Your task to perform on an android device: turn on data saver in the chrome app Image 0: 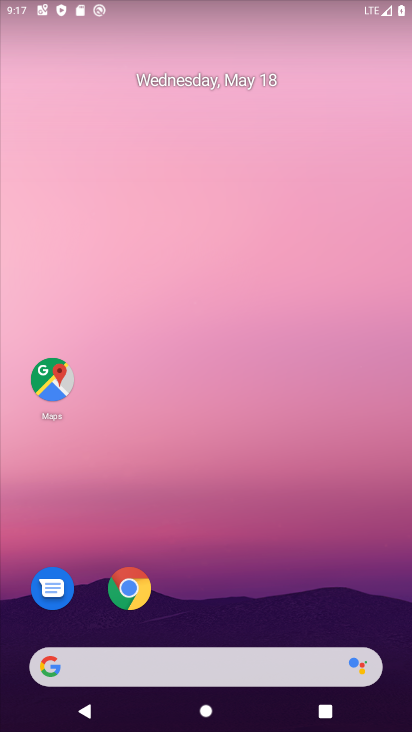
Step 0: click (128, 593)
Your task to perform on an android device: turn on data saver in the chrome app Image 1: 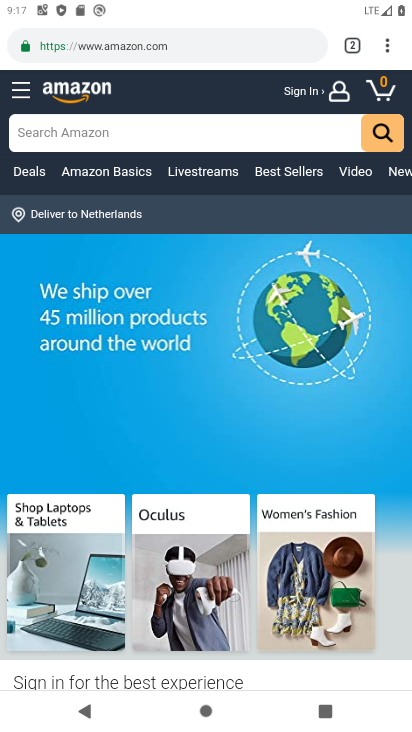
Step 1: click (388, 50)
Your task to perform on an android device: turn on data saver in the chrome app Image 2: 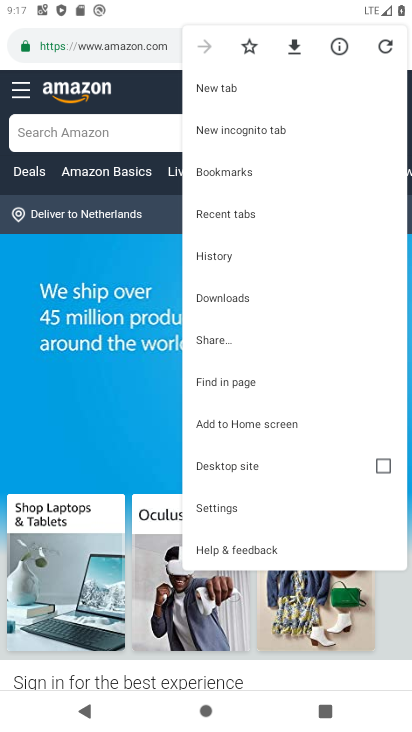
Step 2: click (220, 507)
Your task to perform on an android device: turn on data saver in the chrome app Image 3: 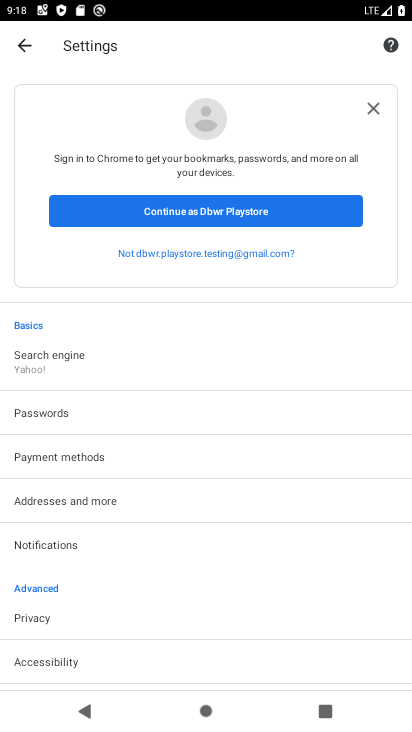
Step 3: drag from (157, 559) to (156, 277)
Your task to perform on an android device: turn on data saver in the chrome app Image 4: 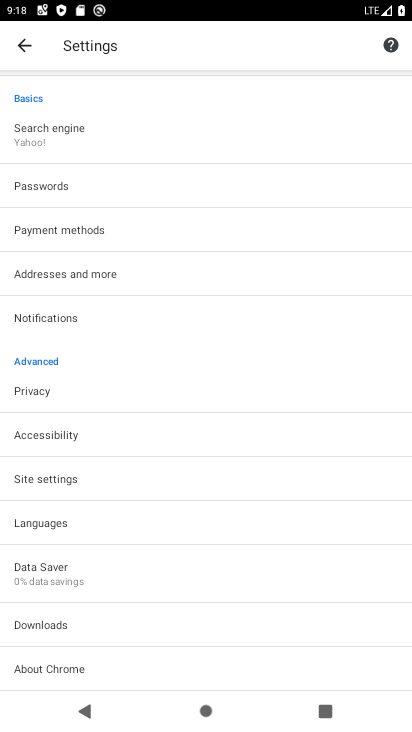
Step 4: click (51, 568)
Your task to perform on an android device: turn on data saver in the chrome app Image 5: 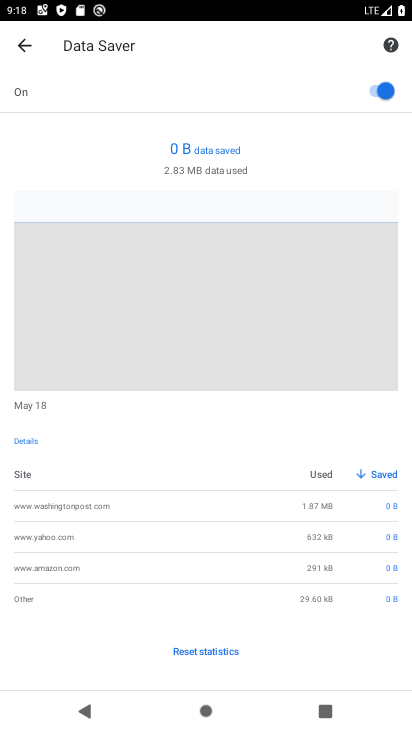
Step 5: task complete